Your task to perform on an android device: Go to sound settings Image 0: 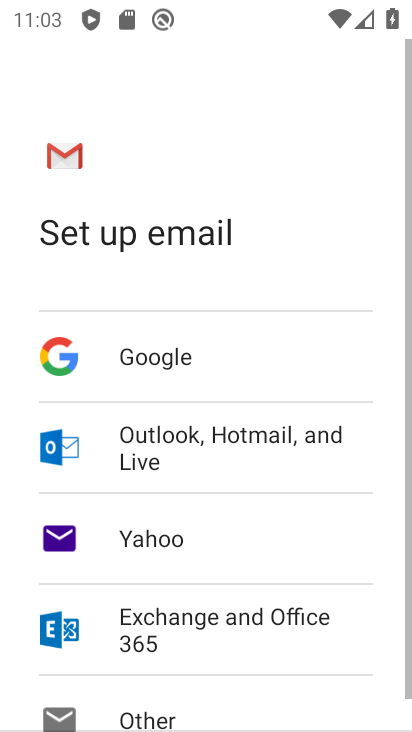
Step 0: press home button
Your task to perform on an android device: Go to sound settings Image 1: 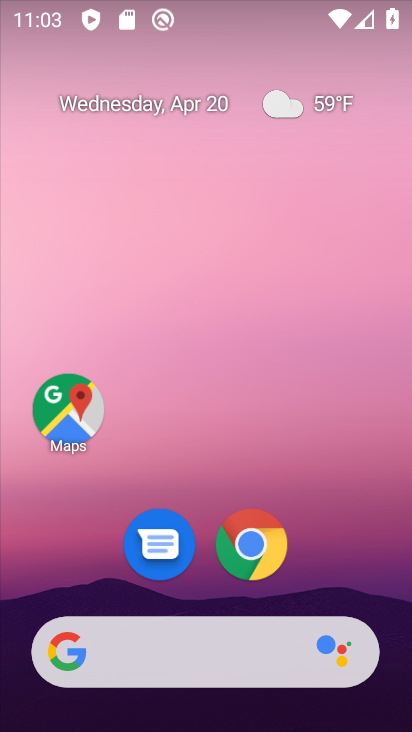
Step 1: drag from (274, 601) to (307, 120)
Your task to perform on an android device: Go to sound settings Image 2: 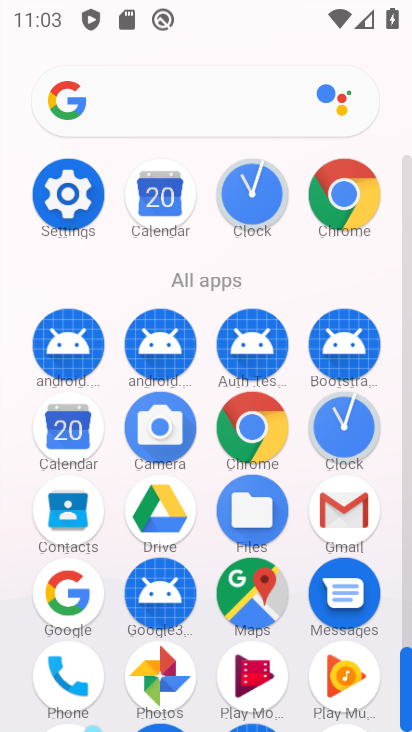
Step 2: click (62, 194)
Your task to perform on an android device: Go to sound settings Image 3: 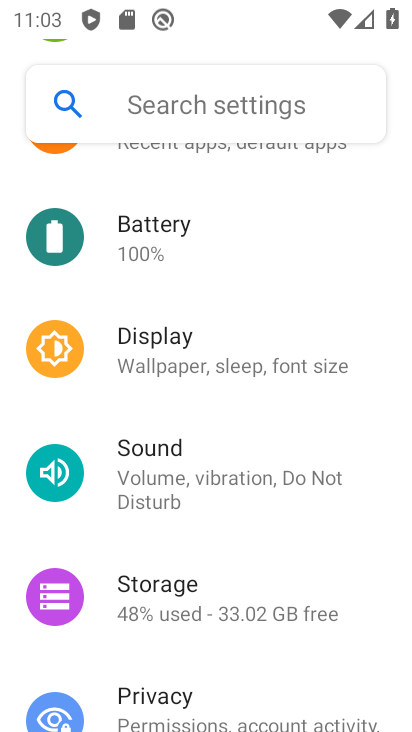
Step 3: click (259, 469)
Your task to perform on an android device: Go to sound settings Image 4: 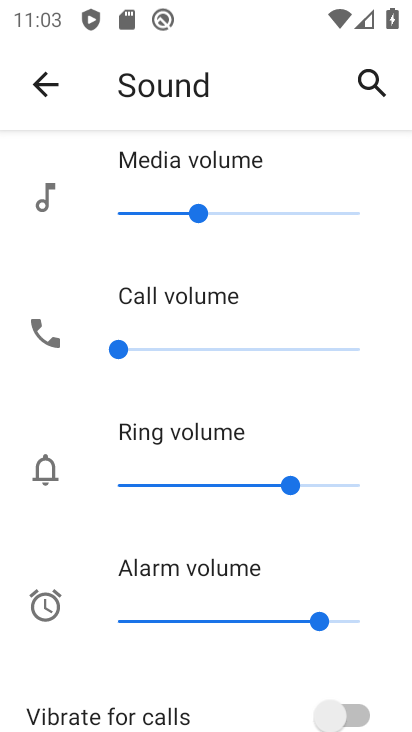
Step 4: task complete